Your task to perform on an android device: toggle sleep mode Image 0: 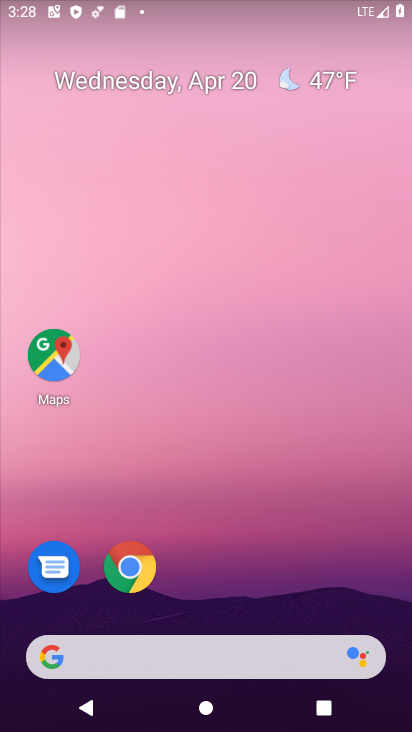
Step 0: drag from (276, 479) to (216, 26)
Your task to perform on an android device: toggle sleep mode Image 1: 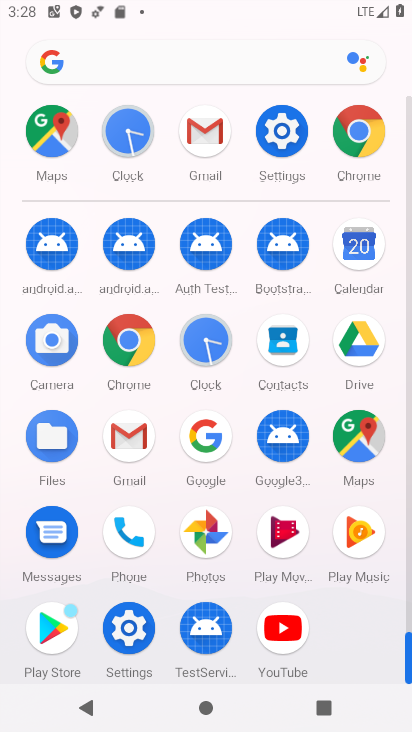
Step 1: click (279, 127)
Your task to perform on an android device: toggle sleep mode Image 2: 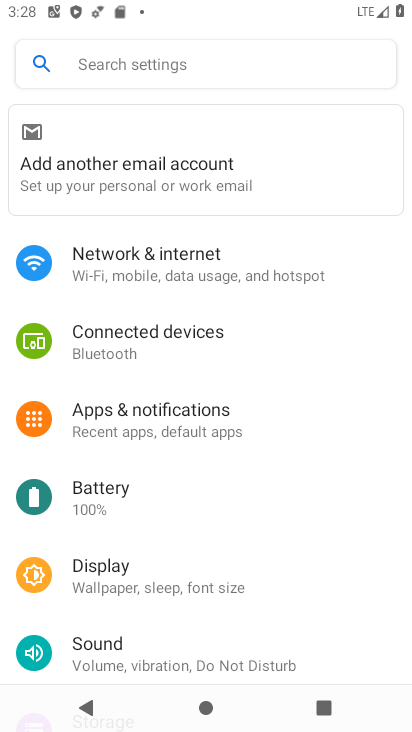
Step 2: drag from (345, 442) to (320, 36)
Your task to perform on an android device: toggle sleep mode Image 3: 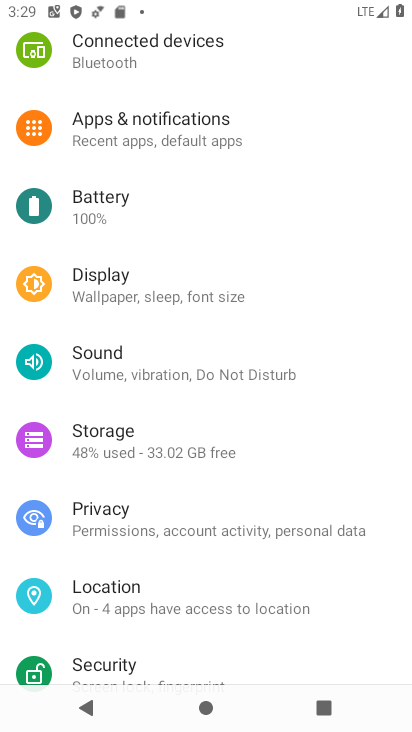
Step 3: click (179, 290)
Your task to perform on an android device: toggle sleep mode Image 4: 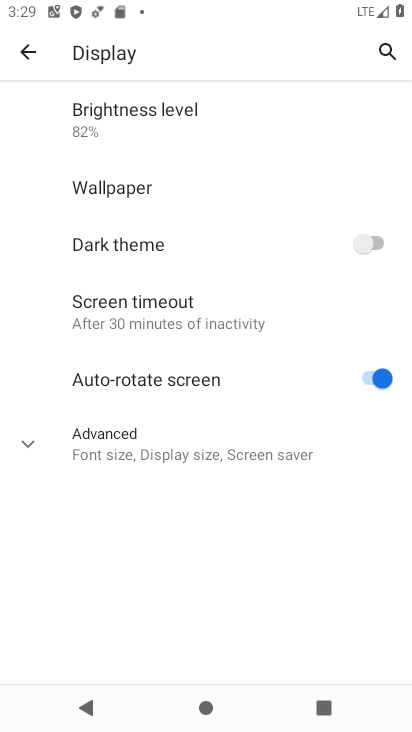
Step 4: click (128, 452)
Your task to perform on an android device: toggle sleep mode Image 5: 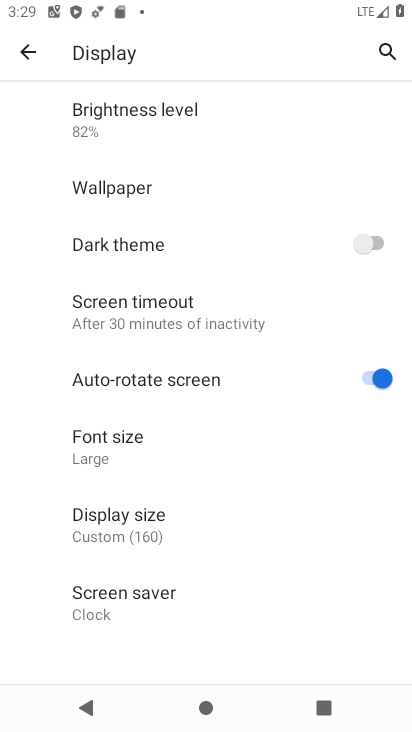
Step 5: task complete